Your task to perform on an android device: Open maps Image 0: 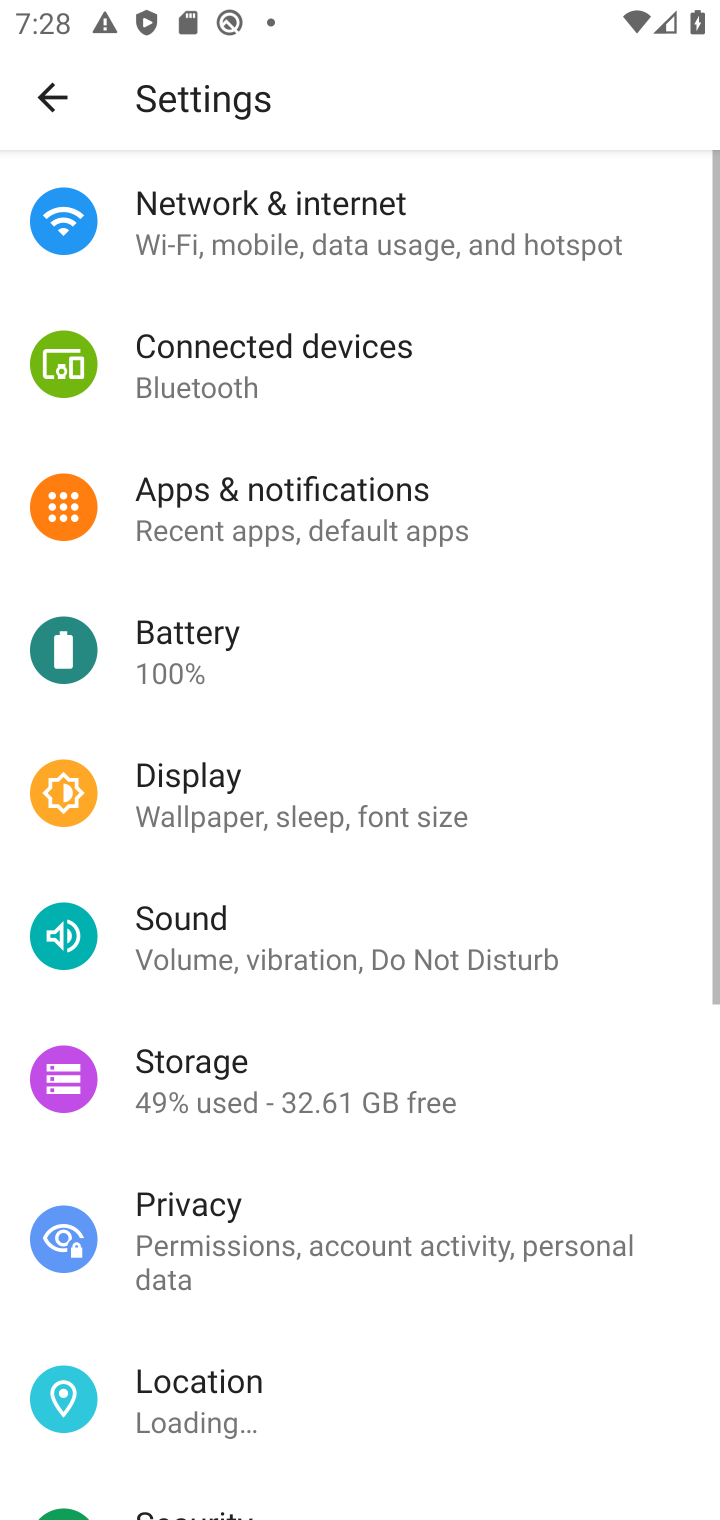
Step 0: press home button
Your task to perform on an android device: Open maps Image 1: 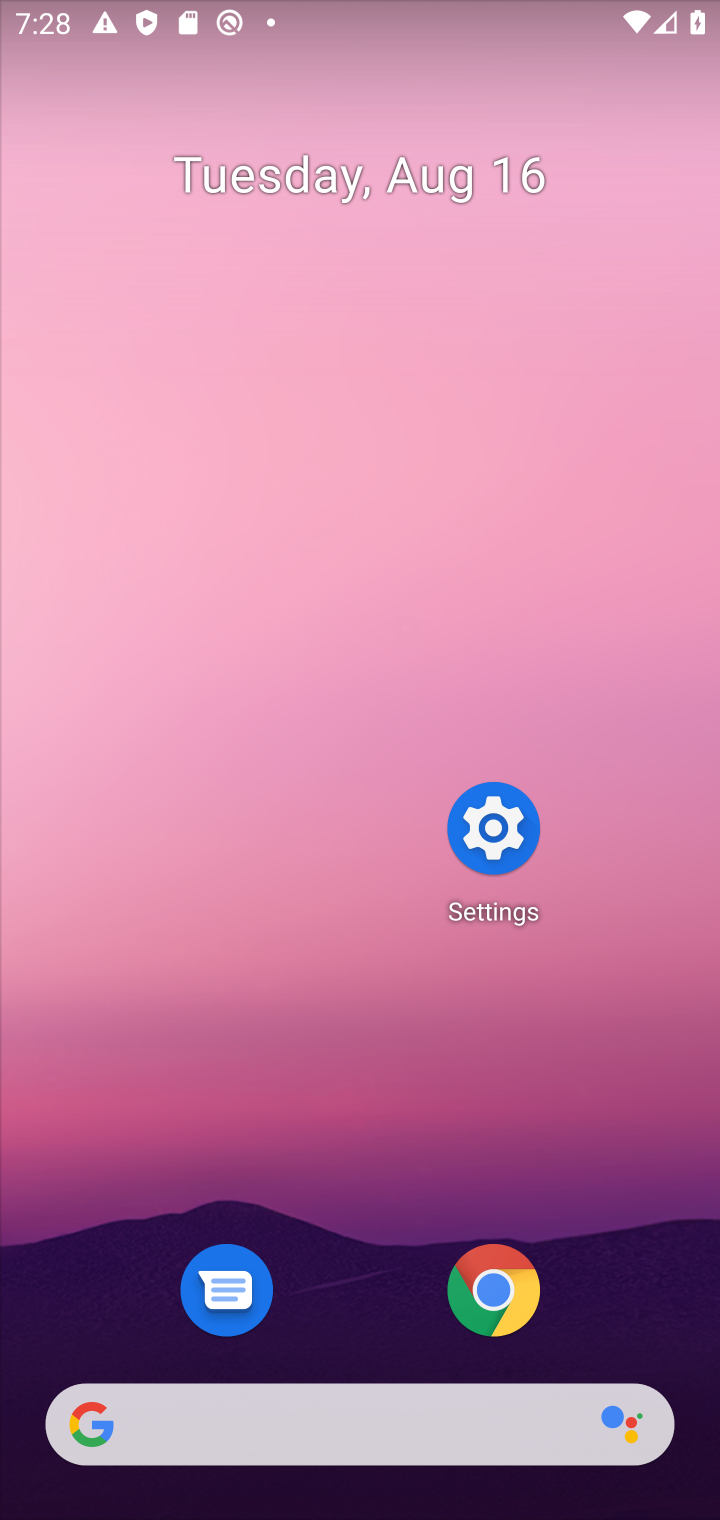
Step 1: drag from (373, 1397) to (563, 157)
Your task to perform on an android device: Open maps Image 2: 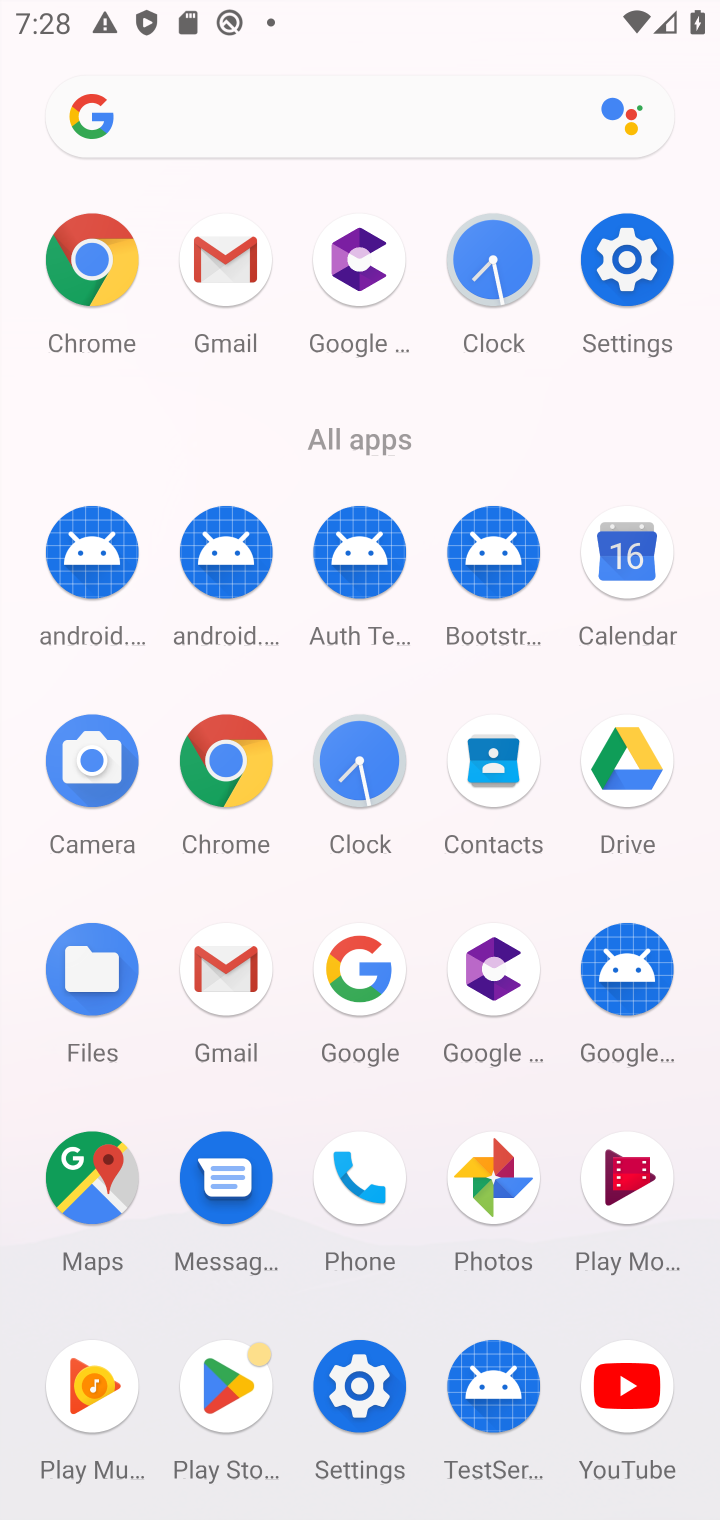
Step 2: click (85, 1186)
Your task to perform on an android device: Open maps Image 3: 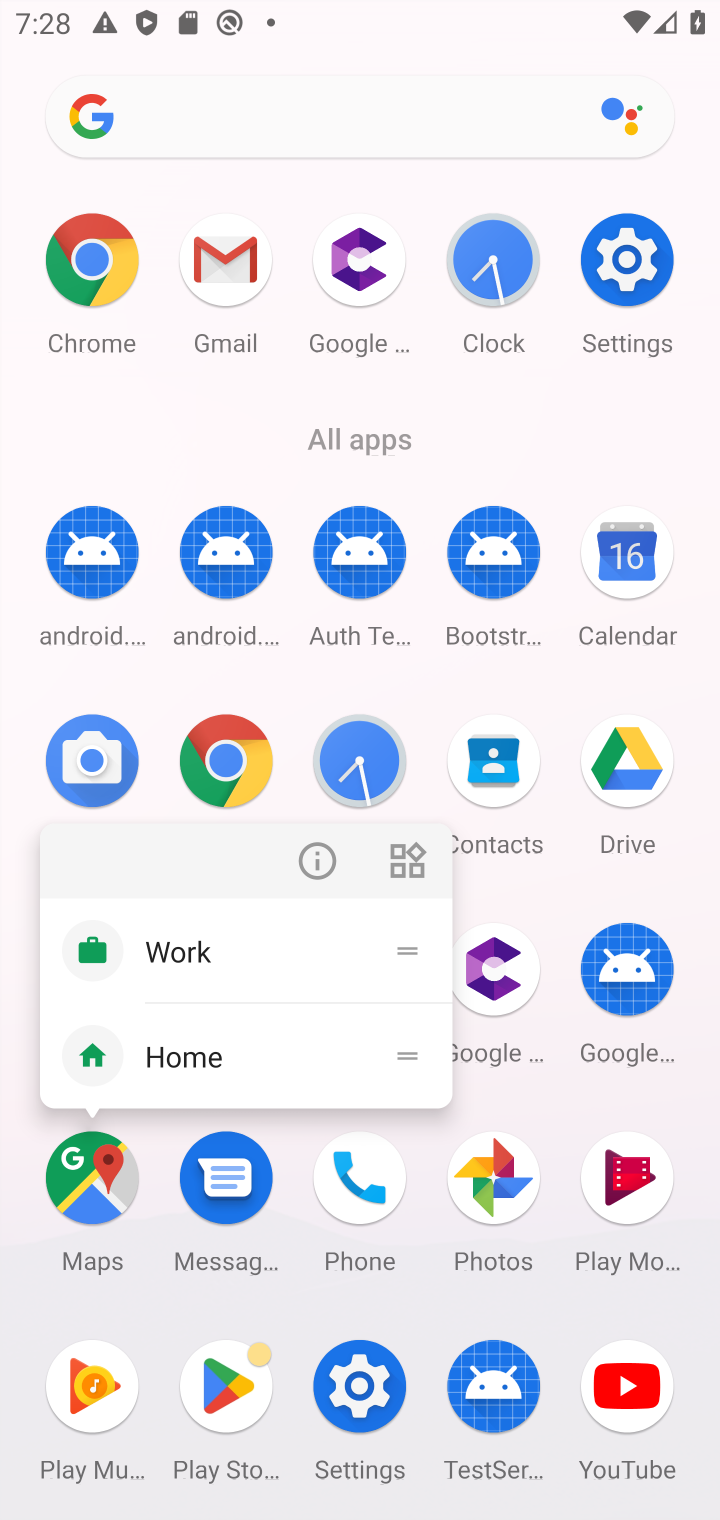
Step 3: click (87, 1178)
Your task to perform on an android device: Open maps Image 4: 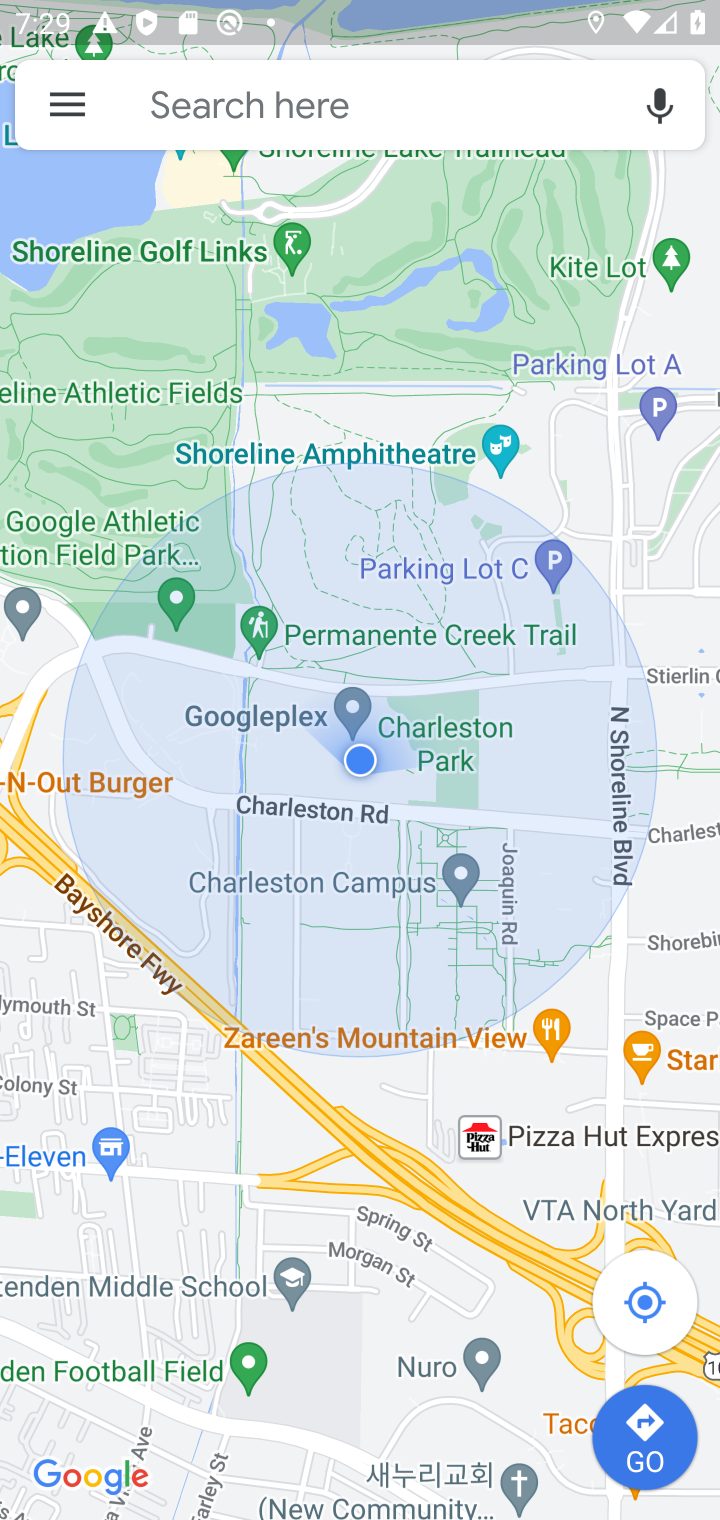
Step 4: task complete